Your task to perform on an android device: change alarm snooze length Image 0: 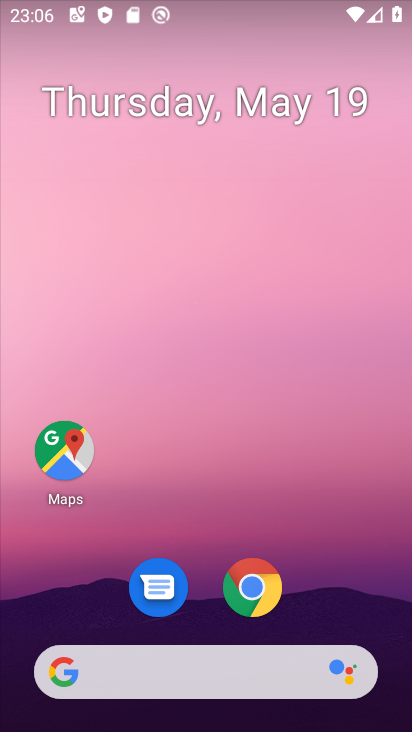
Step 0: press home button
Your task to perform on an android device: change alarm snooze length Image 1: 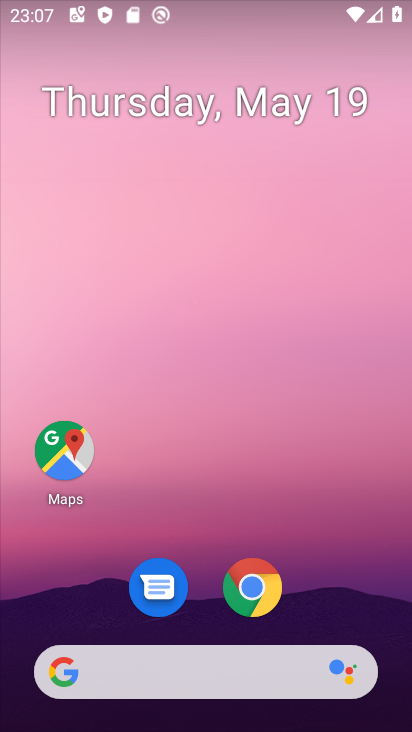
Step 1: drag from (225, 681) to (314, 397)
Your task to perform on an android device: change alarm snooze length Image 2: 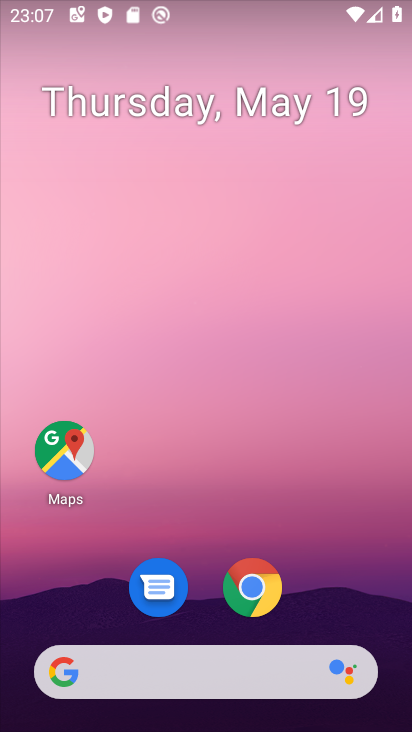
Step 2: drag from (232, 694) to (283, 118)
Your task to perform on an android device: change alarm snooze length Image 3: 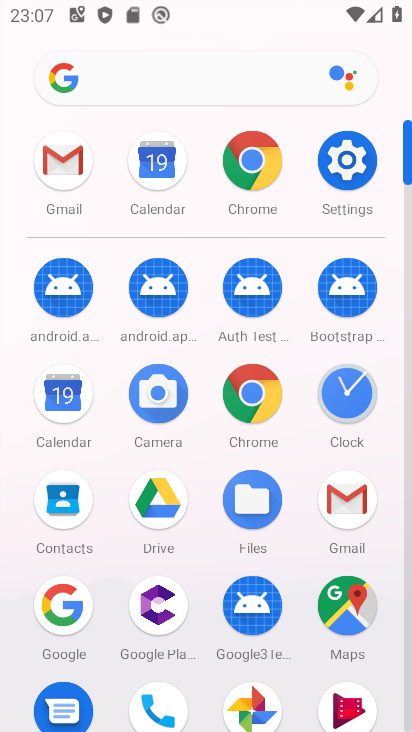
Step 3: click (353, 161)
Your task to perform on an android device: change alarm snooze length Image 4: 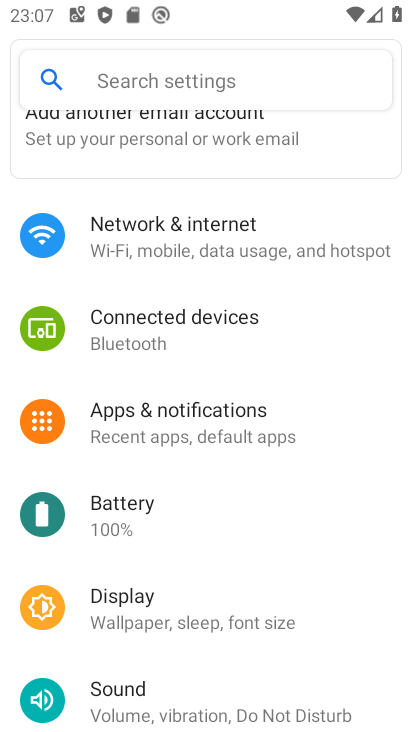
Step 4: press home button
Your task to perform on an android device: change alarm snooze length Image 5: 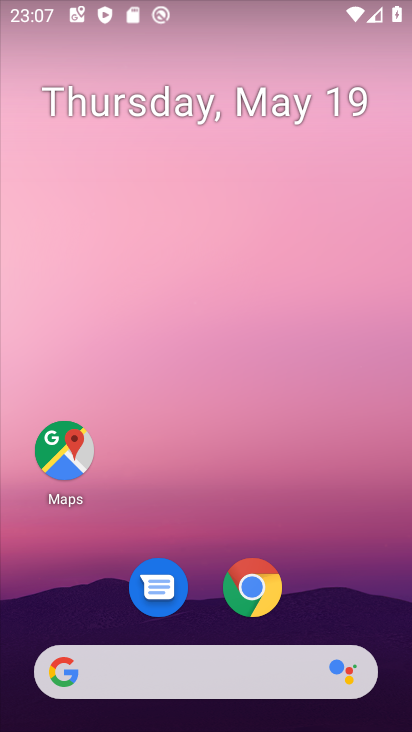
Step 5: drag from (257, 692) to (241, 132)
Your task to perform on an android device: change alarm snooze length Image 6: 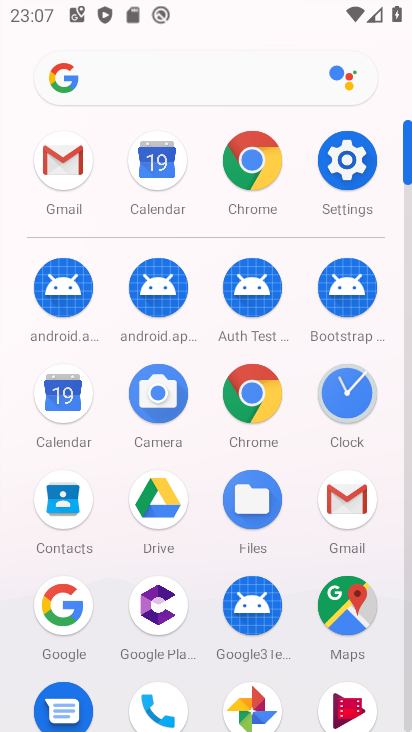
Step 6: click (355, 387)
Your task to perform on an android device: change alarm snooze length Image 7: 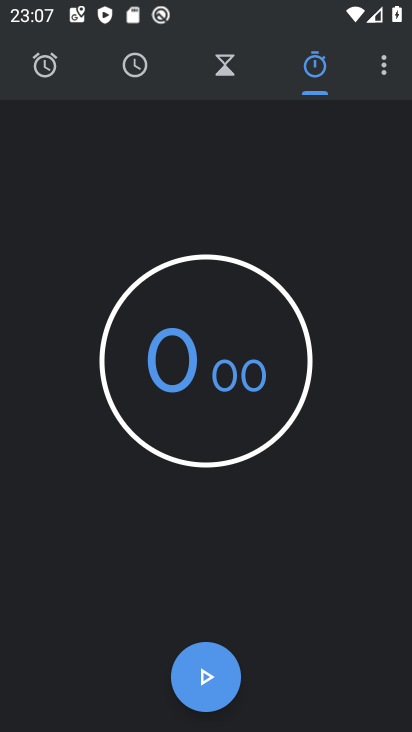
Step 7: click (366, 63)
Your task to perform on an android device: change alarm snooze length Image 8: 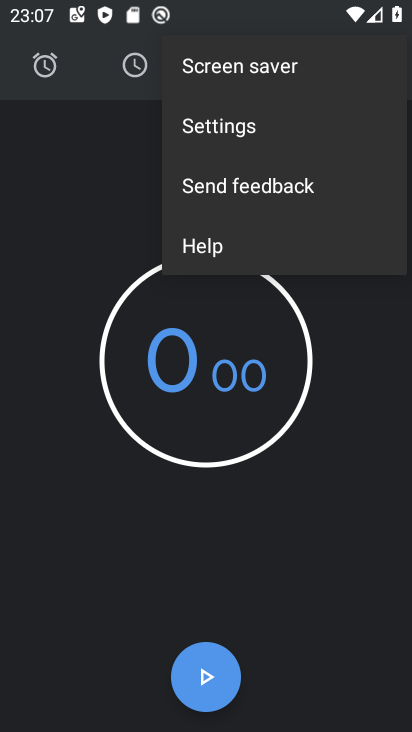
Step 8: click (244, 138)
Your task to perform on an android device: change alarm snooze length Image 9: 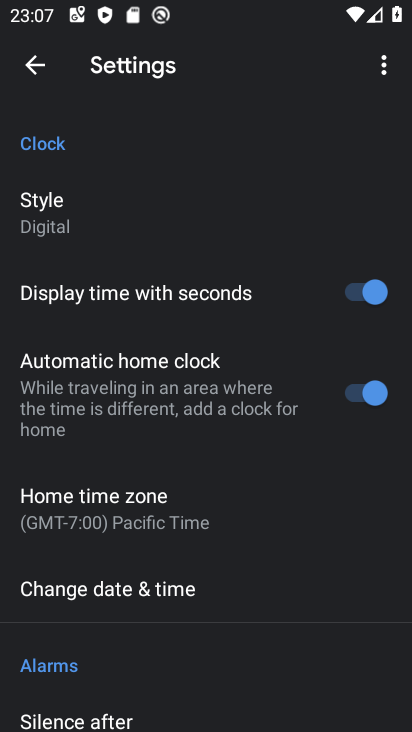
Step 9: drag from (225, 591) to (261, 245)
Your task to perform on an android device: change alarm snooze length Image 10: 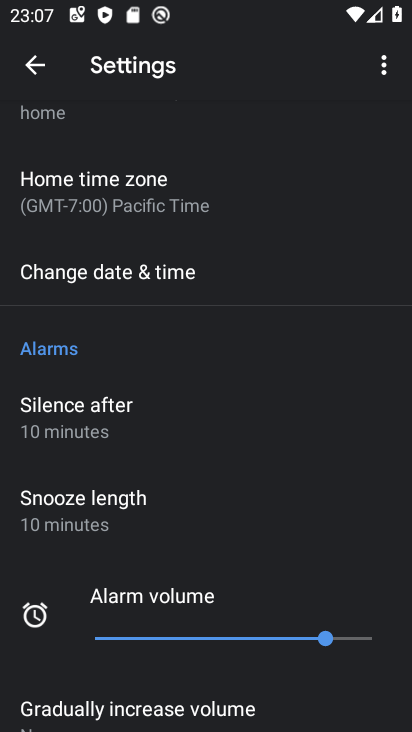
Step 10: click (141, 512)
Your task to perform on an android device: change alarm snooze length Image 11: 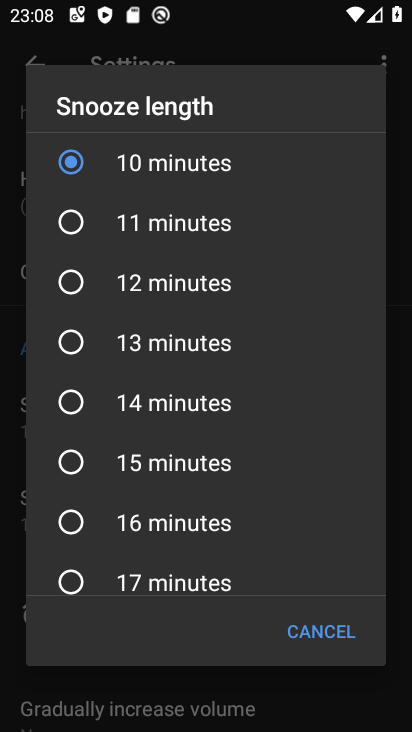
Step 11: click (179, 407)
Your task to perform on an android device: change alarm snooze length Image 12: 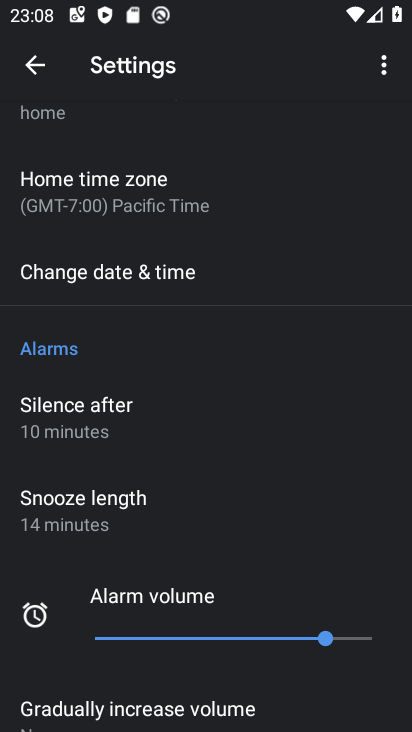
Step 12: task complete